Your task to perform on an android device: Open internet settings Image 0: 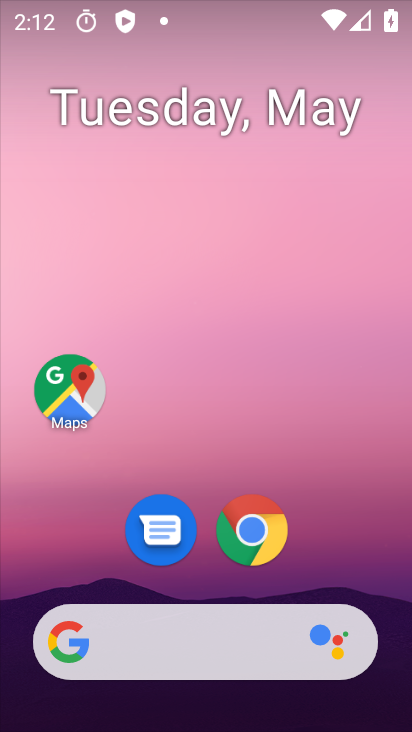
Step 0: drag from (215, 590) to (115, 14)
Your task to perform on an android device: Open internet settings Image 1: 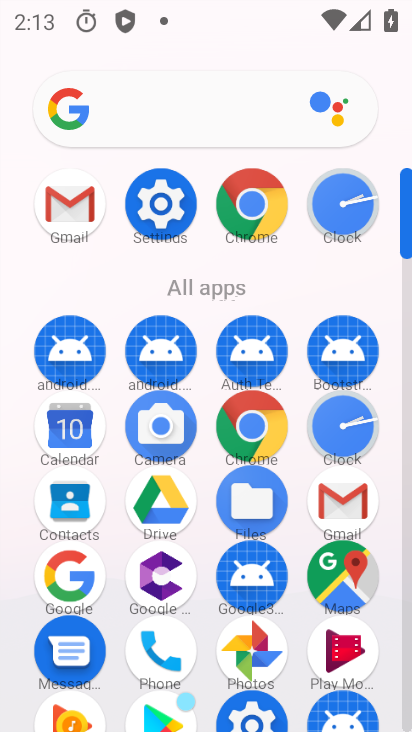
Step 1: click (139, 204)
Your task to perform on an android device: Open internet settings Image 2: 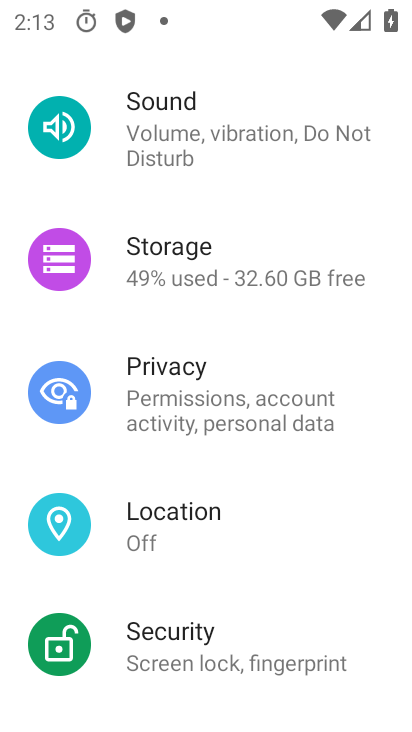
Step 2: drag from (154, 178) to (168, 557)
Your task to perform on an android device: Open internet settings Image 3: 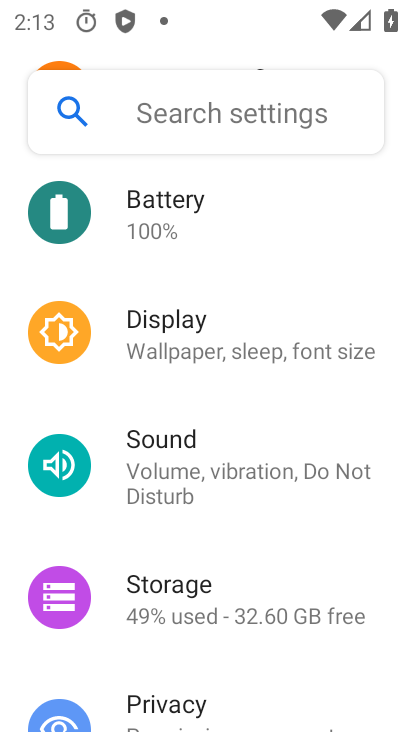
Step 3: drag from (190, 192) to (190, 708)
Your task to perform on an android device: Open internet settings Image 4: 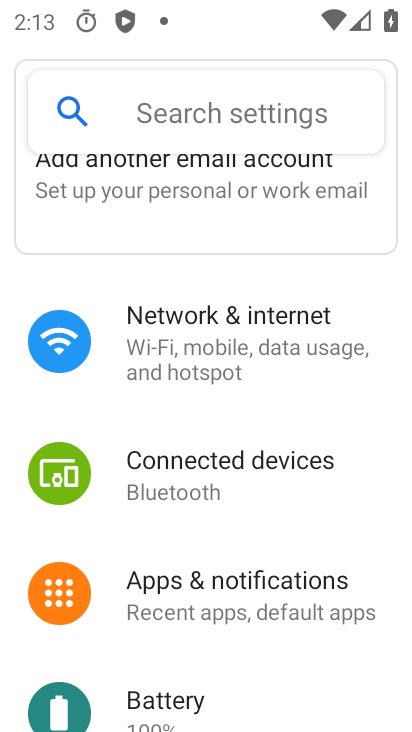
Step 4: click (205, 336)
Your task to perform on an android device: Open internet settings Image 5: 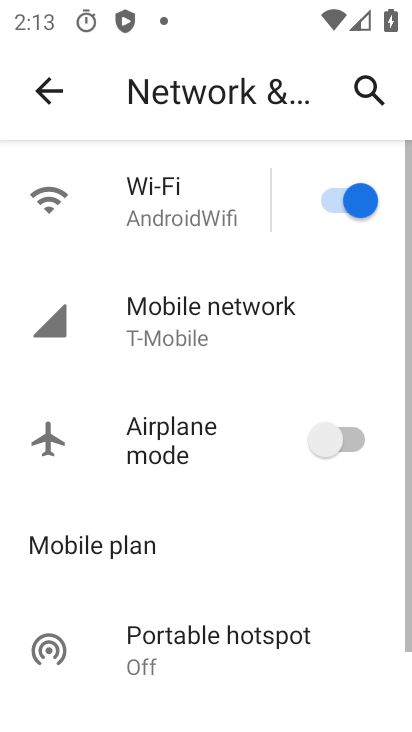
Step 5: click (206, 335)
Your task to perform on an android device: Open internet settings Image 6: 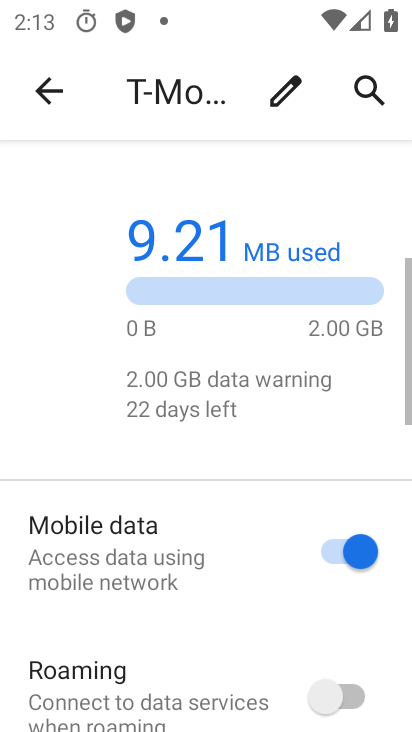
Step 6: task complete